Your task to perform on an android device: toggle wifi Image 0: 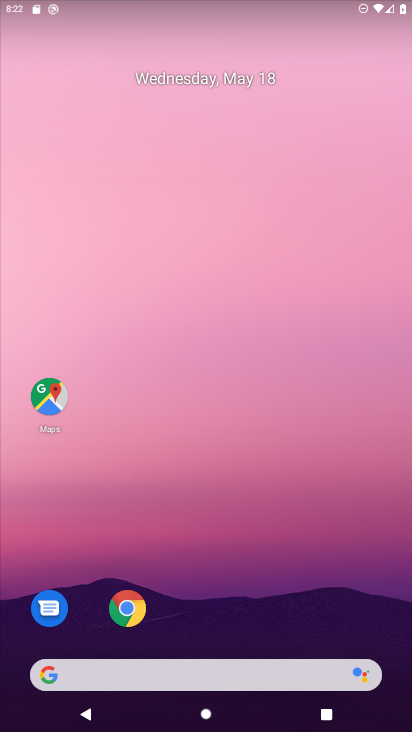
Step 0: drag from (330, 8) to (292, 473)
Your task to perform on an android device: toggle wifi Image 1: 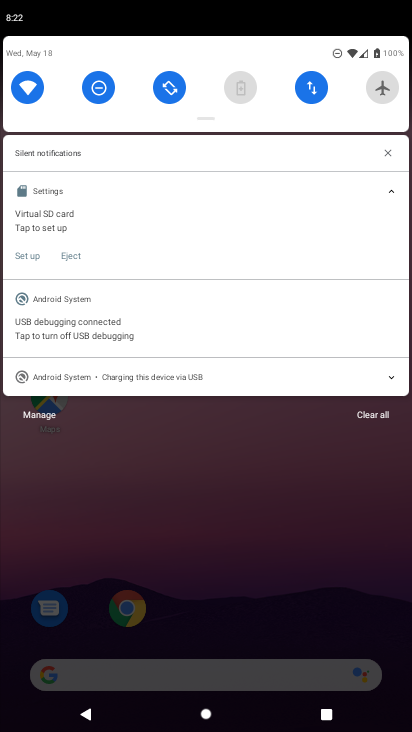
Step 1: click (21, 94)
Your task to perform on an android device: toggle wifi Image 2: 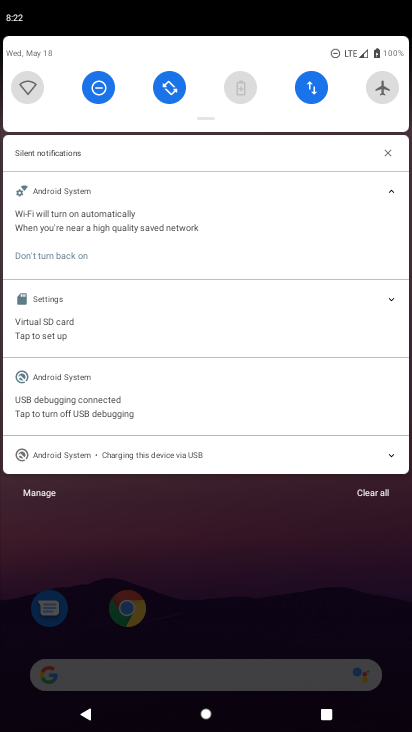
Step 2: task complete